Your task to perform on an android device: change the clock display to analog Image 0: 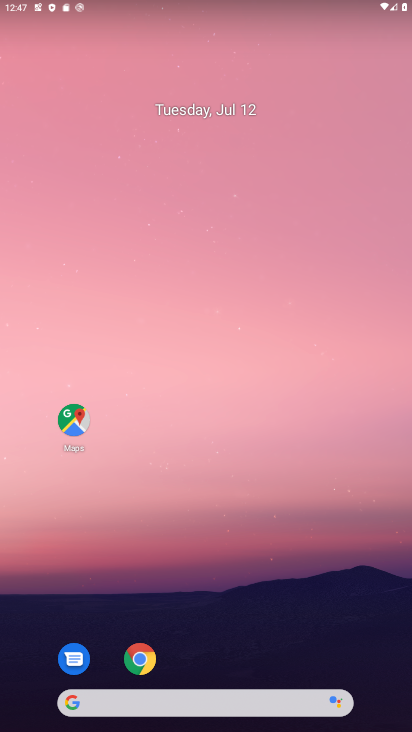
Step 0: drag from (225, 712) to (213, 174)
Your task to perform on an android device: change the clock display to analog Image 1: 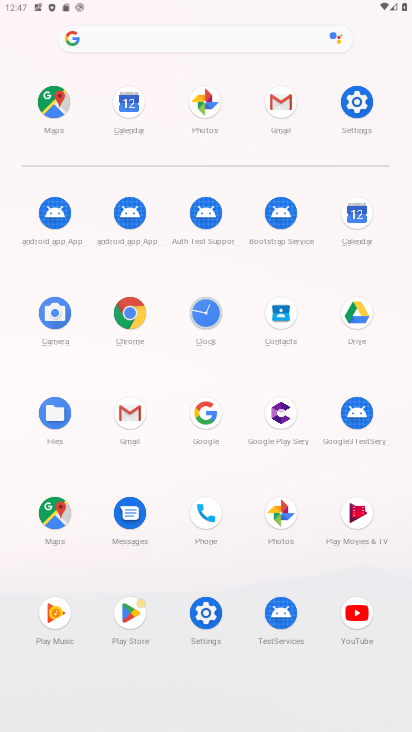
Step 1: click (213, 306)
Your task to perform on an android device: change the clock display to analog Image 2: 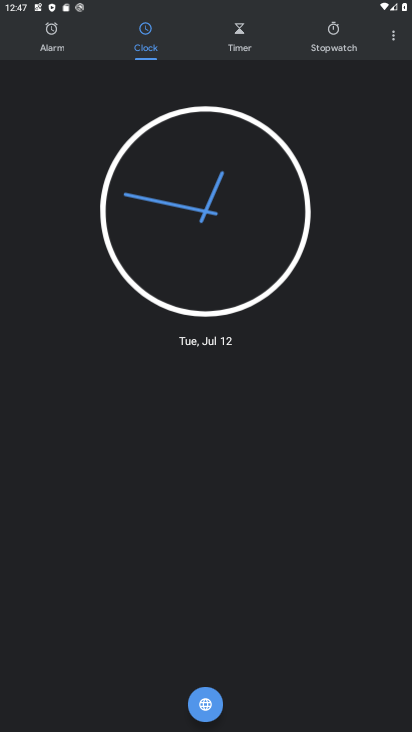
Step 2: click (392, 37)
Your task to perform on an android device: change the clock display to analog Image 3: 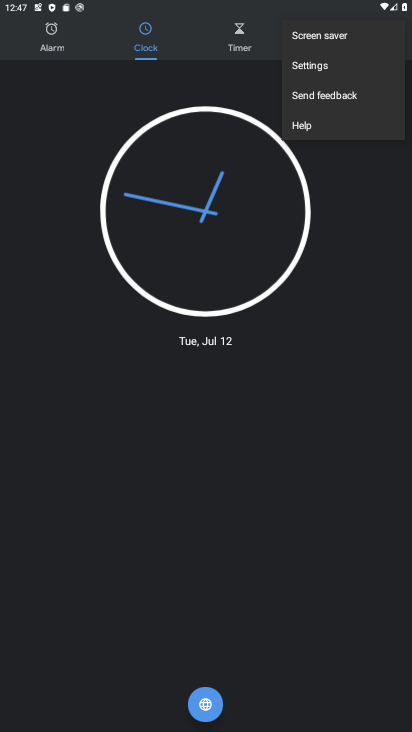
Step 3: click (305, 63)
Your task to perform on an android device: change the clock display to analog Image 4: 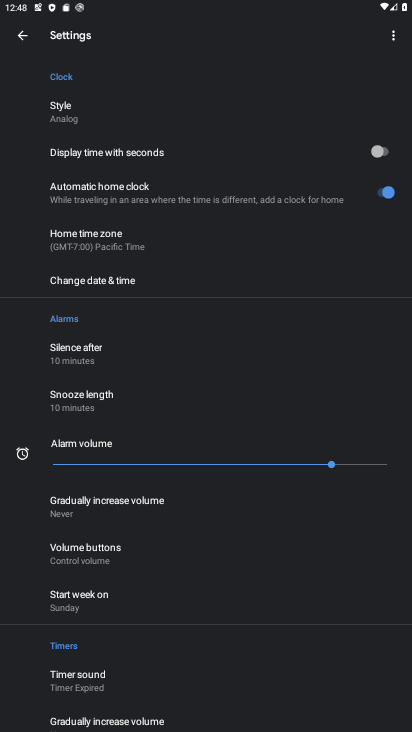
Step 4: task complete